Your task to perform on an android device: turn on showing notifications on the lock screen Image 0: 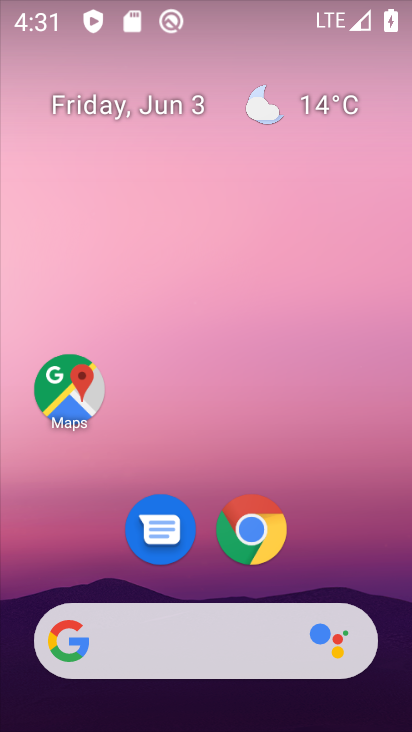
Step 0: drag from (207, 568) to (339, 197)
Your task to perform on an android device: turn on showing notifications on the lock screen Image 1: 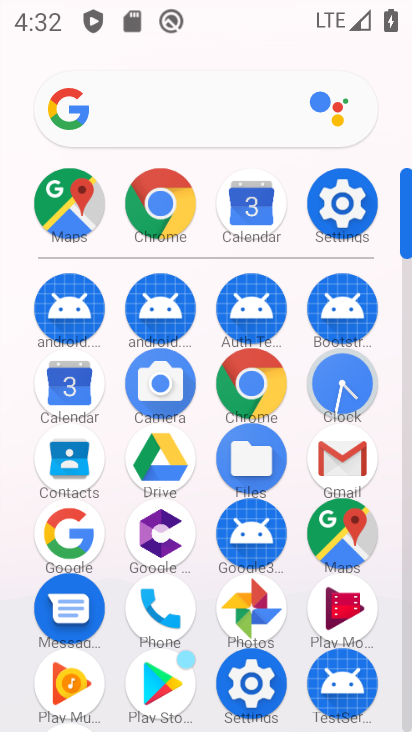
Step 1: click (336, 200)
Your task to perform on an android device: turn on showing notifications on the lock screen Image 2: 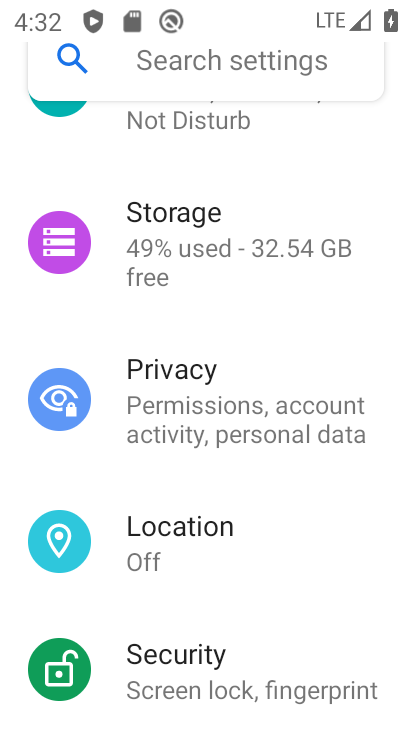
Step 2: drag from (163, 155) to (171, 234)
Your task to perform on an android device: turn on showing notifications on the lock screen Image 3: 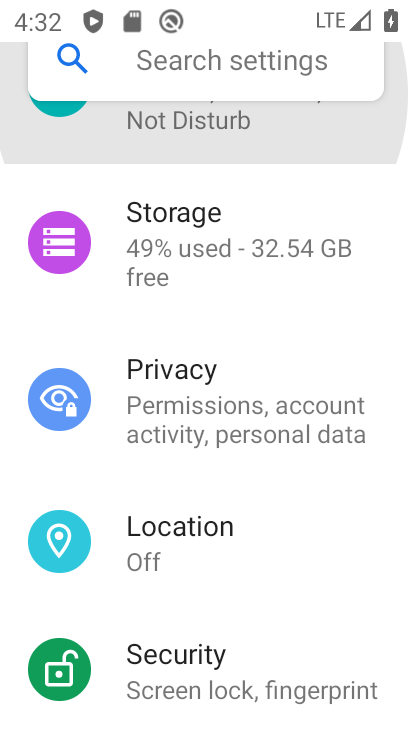
Step 3: drag from (185, 373) to (191, 510)
Your task to perform on an android device: turn on showing notifications on the lock screen Image 4: 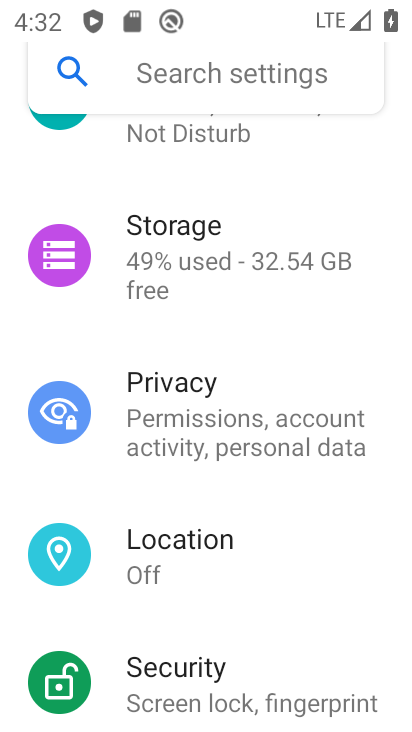
Step 4: click (195, 596)
Your task to perform on an android device: turn on showing notifications on the lock screen Image 5: 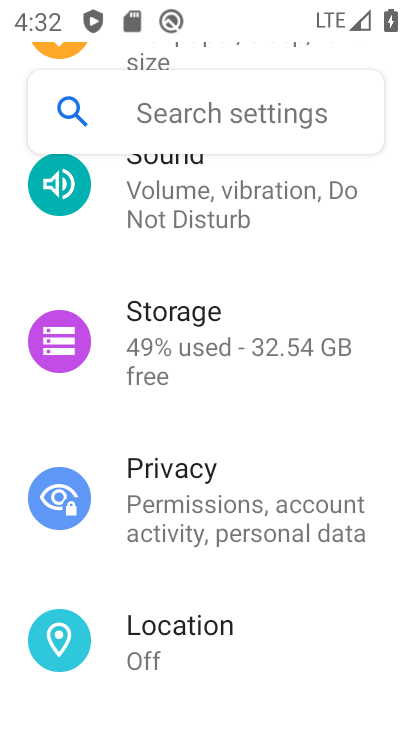
Step 5: drag from (149, 178) to (172, 616)
Your task to perform on an android device: turn on showing notifications on the lock screen Image 6: 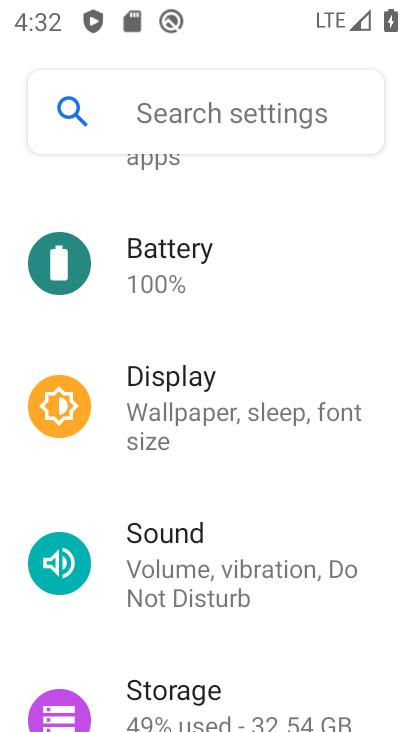
Step 6: drag from (210, 483) to (220, 626)
Your task to perform on an android device: turn on showing notifications on the lock screen Image 7: 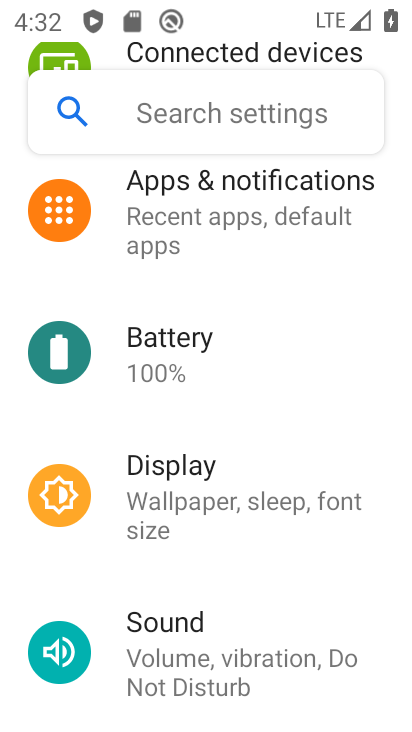
Step 7: click (203, 211)
Your task to perform on an android device: turn on showing notifications on the lock screen Image 8: 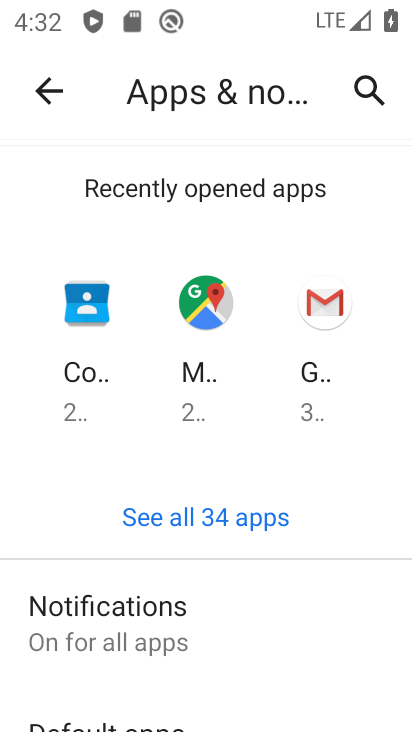
Step 8: click (212, 606)
Your task to perform on an android device: turn on showing notifications on the lock screen Image 9: 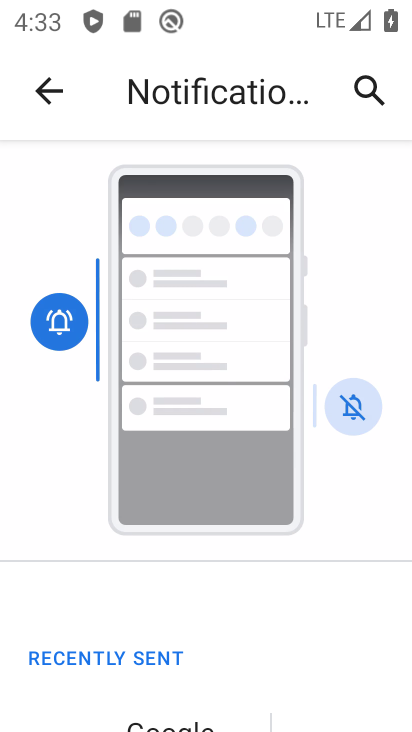
Step 9: drag from (252, 678) to (283, 200)
Your task to perform on an android device: turn on showing notifications on the lock screen Image 10: 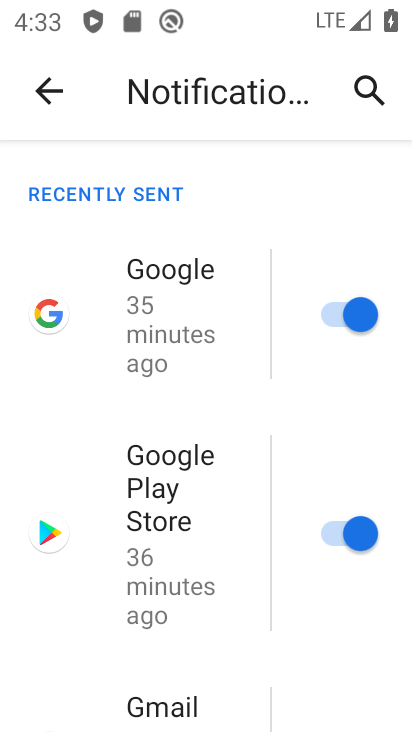
Step 10: drag from (240, 650) to (262, 126)
Your task to perform on an android device: turn on showing notifications on the lock screen Image 11: 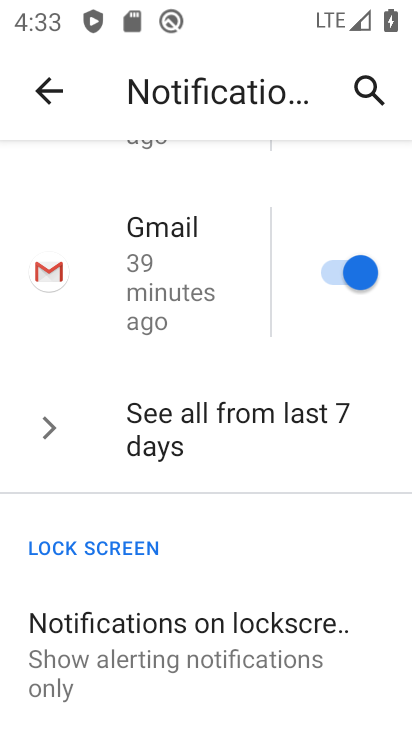
Step 11: click (218, 639)
Your task to perform on an android device: turn on showing notifications on the lock screen Image 12: 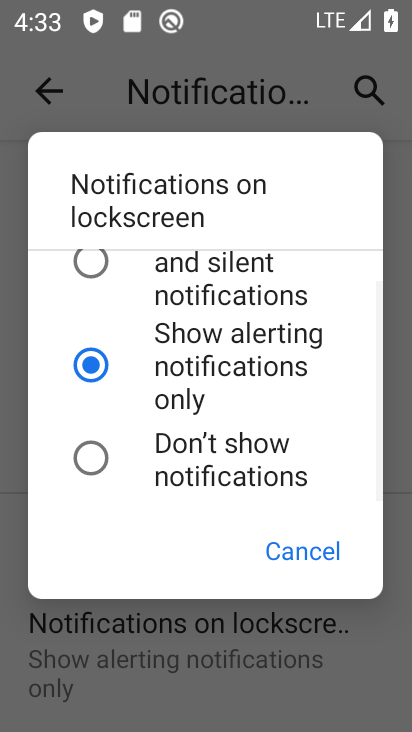
Step 12: click (86, 259)
Your task to perform on an android device: turn on showing notifications on the lock screen Image 13: 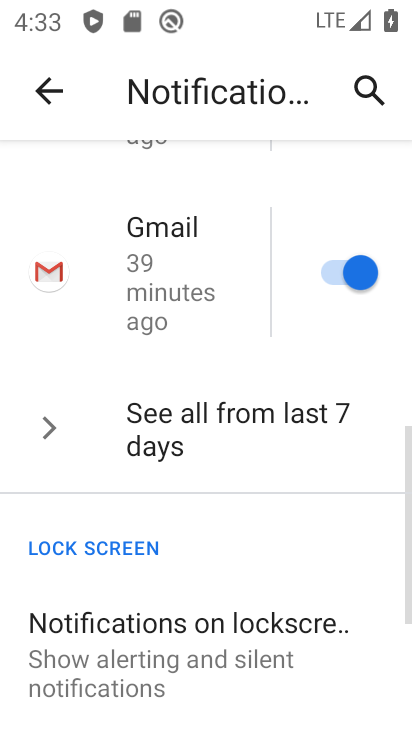
Step 13: task complete